Your task to perform on an android device: Open Google Chrome and open the bookmarks view Image 0: 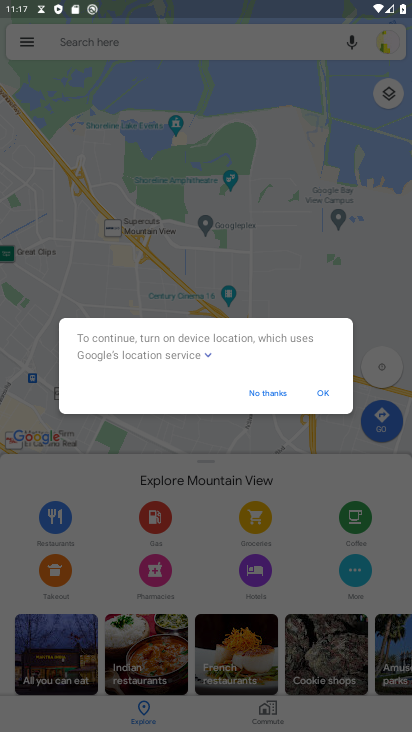
Step 0: press home button
Your task to perform on an android device: Open Google Chrome and open the bookmarks view Image 1: 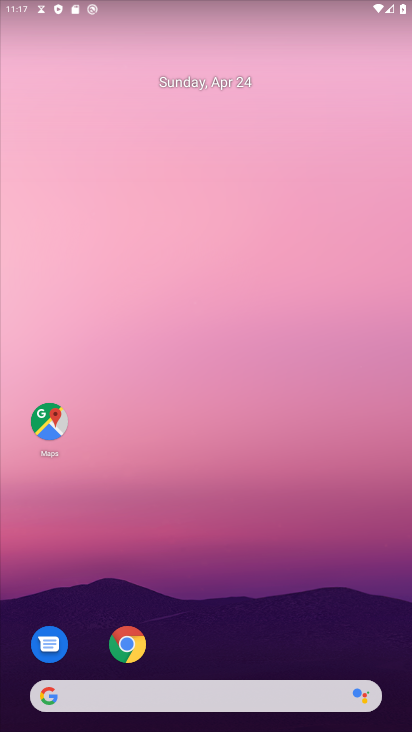
Step 1: click (131, 650)
Your task to perform on an android device: Open Google Chrome and open the bookmarks view Image 2: 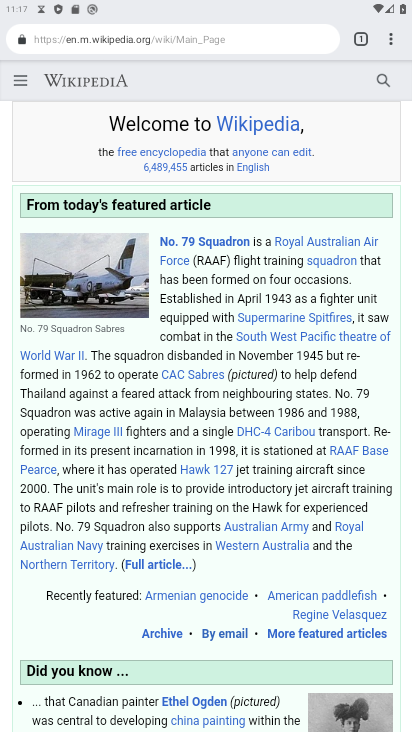
Step 2: drag from (389, 39) to (267, 147)
Your task to perform on an android device: Open Google Chrome and open the bookmarks view Image 3: 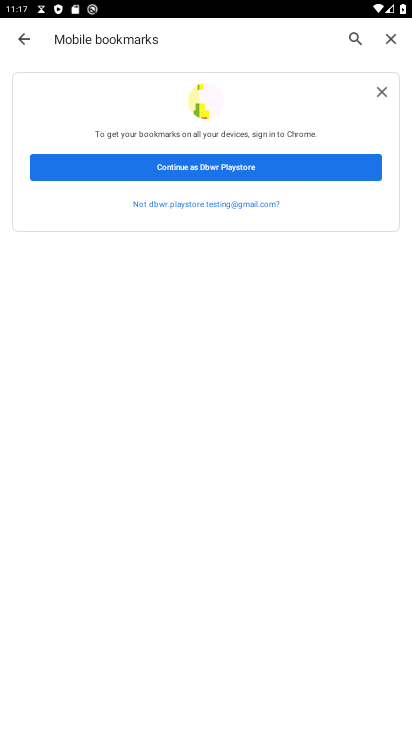
Step 3: click (225, 168)
Your task to perform on an android device: Open Google Chrome and open the bookmarks view Image 4: 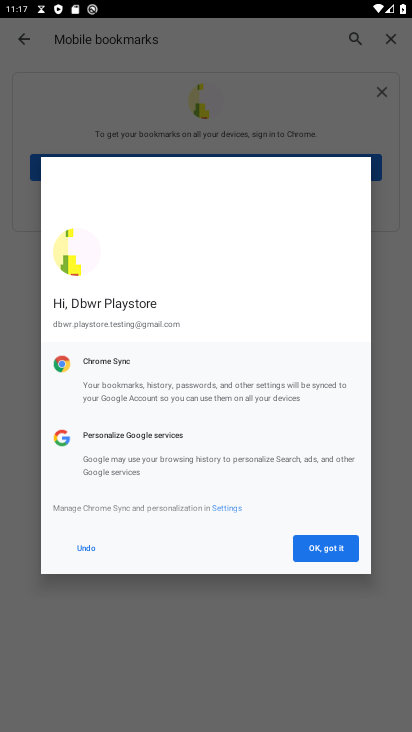
Step 4: click (319, 555)
Your task to perform on an android device: Open Google Chrome and open the bookmarks view Image 5: 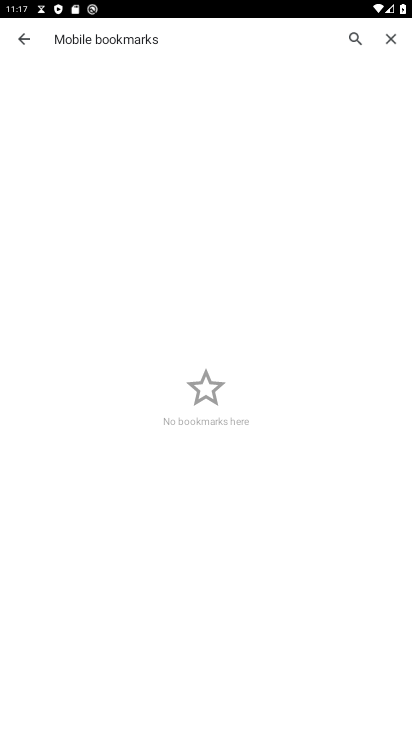
Step 5: task complete